Your task to perform on an android device: change notification settings in the gmail app Image 0: 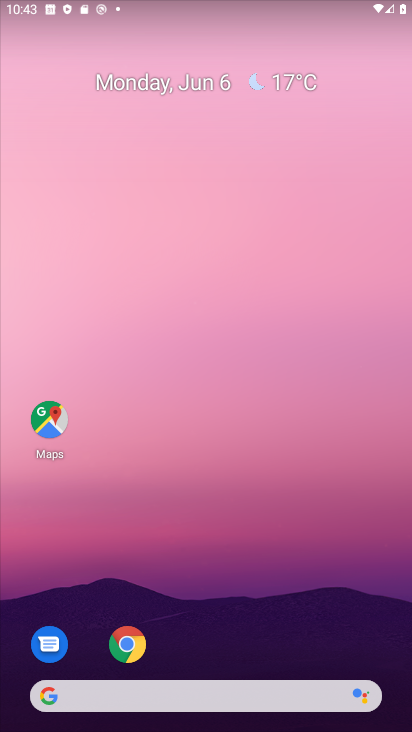
Step 0: drag from (218, 656) to (190, 1)
Your task to perform on an android device: change notification settings in the gmail app Image 1: 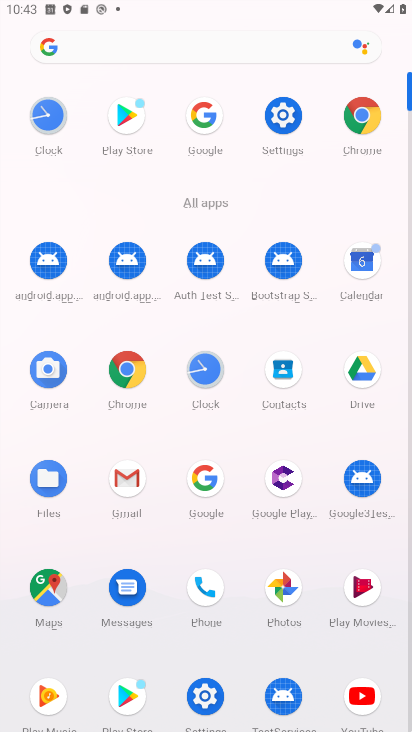
Step 1: click (280, 126)
Your task to perform on an android device: change notification settings in the gmail app Image 2: 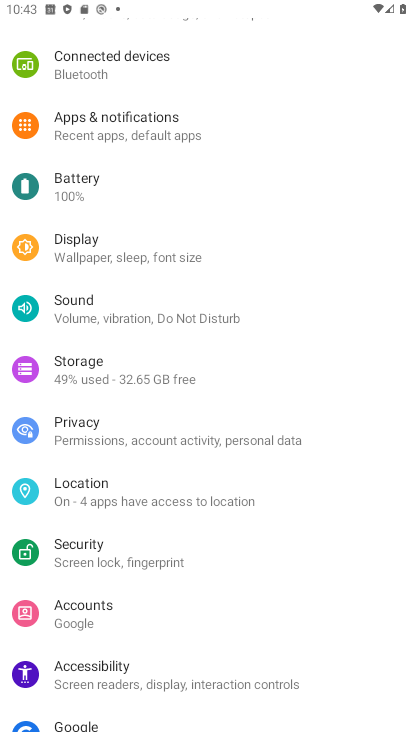
Step 2: press home button
Your task to perform on an android device: change notification settings in the gmail app Image 3: 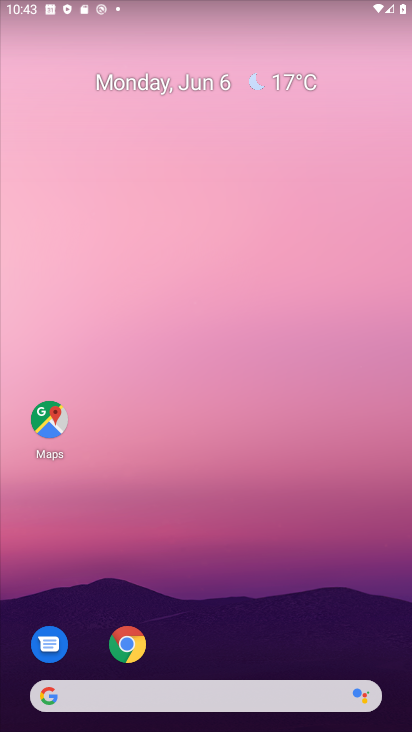
Step 3: drag from (228, 498) to (203, 23)
Your task to perform on an android device: change notification settings in the gmail app Image 4: 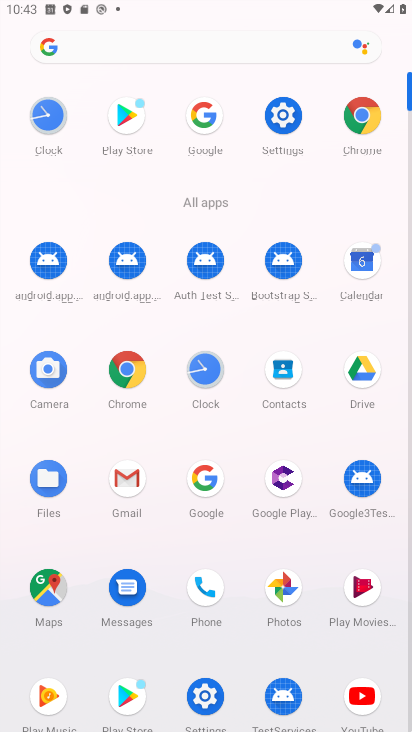
Step 4: click (135, 520)
Your task to perform on an android device: change notification settings in the gmail app Image 5: 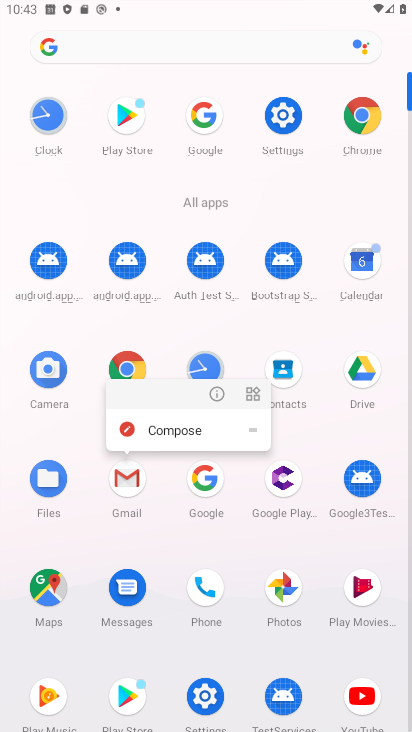
Step 5: click (206, 403)
Your task to perform on an android device: change notification settings in the gmail app Image 6: 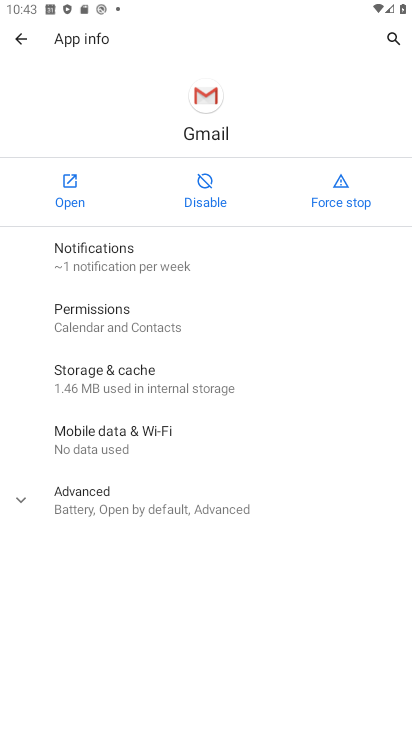
Step 6: click (92, 251)
Your task to perform on an android device: change notification settings in the gmail app Image 7: 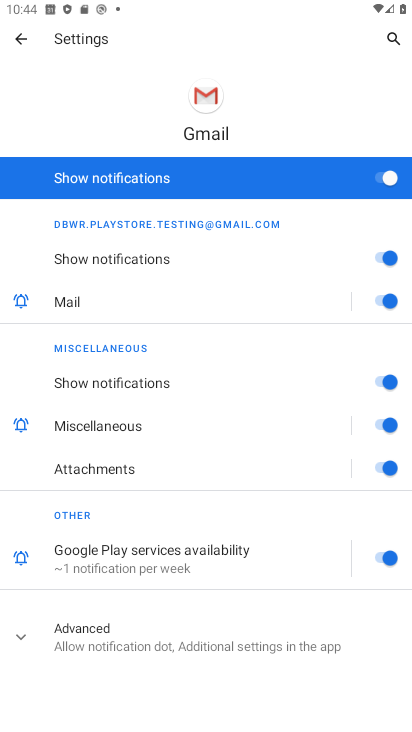
Step 7: click (337, 164)
Your task to perform on an android device: change notification settings in the gmail app Image 8: 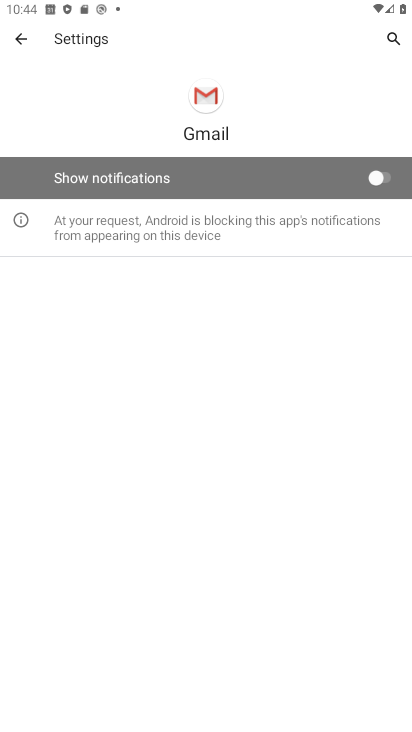
Step 8: task complete